Your task to perform on an android device: Search for Italian restaurants on Maps Image 0: 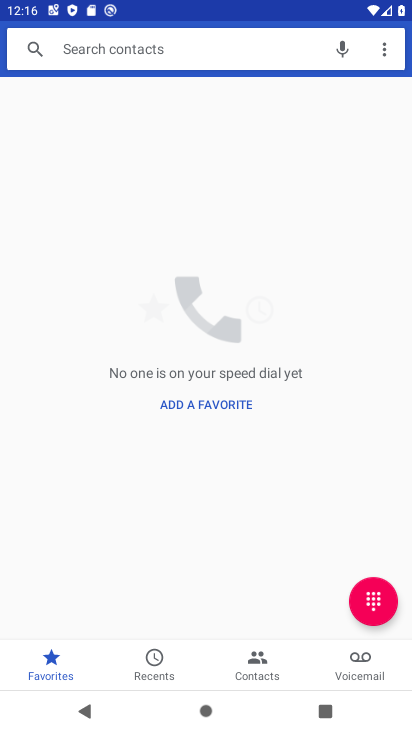
Step 0: press home button
Your task to perform on an android device: Search for Italian restaurants on Maps Image 1: 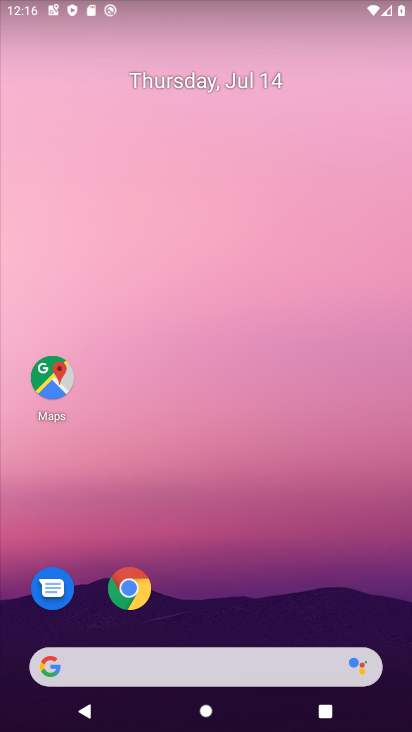
Step 1: click (45, 399)
Your task to perform on an android device: Search for Italian restaurants on Maps Image 2: 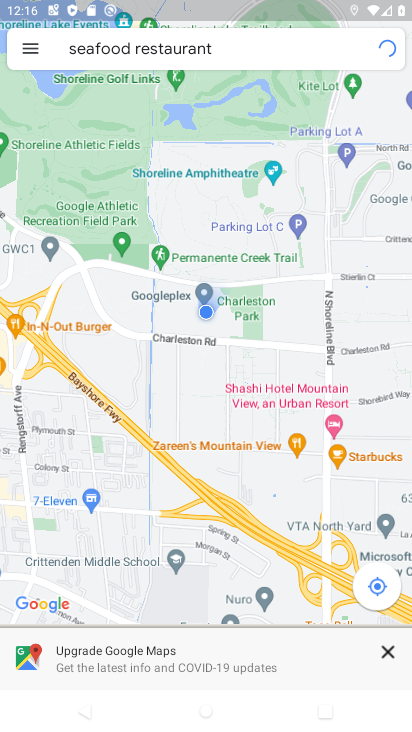
Step 2: click (290, 45)
Your task to perform on an android device: Search for Italian restaurants on Maps Image 3: 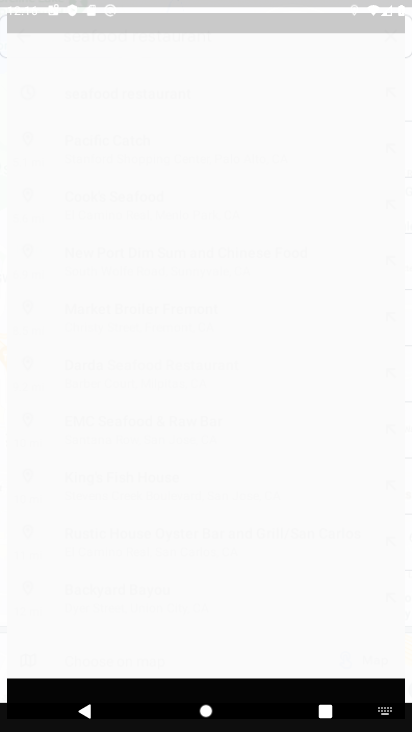
Step 3: click (386, 44)
Your task to perform on an android device: Search for Italian restaurants on Maps Image 4: 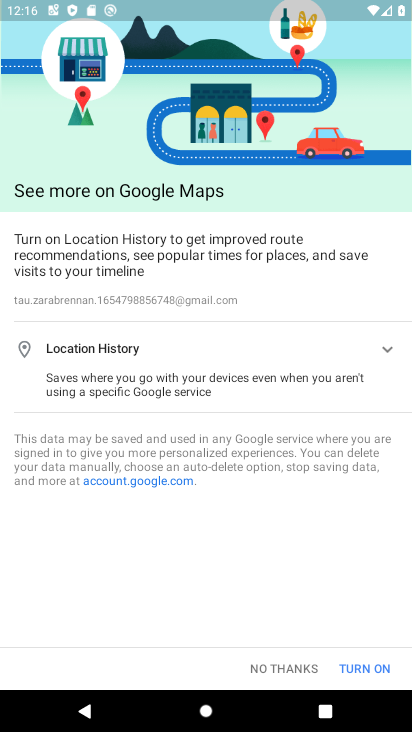
Step 4: click (354, 672)
Your task to perform on an android device: Search for Italian restaurants on Maps Image 5: 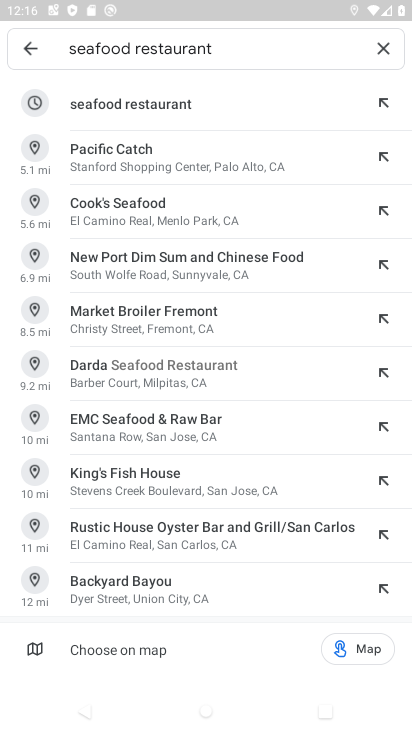
Step 5: click (386, 44)
Your task to perform on an android device: Search for Italian restaurants on Maps Image 6: 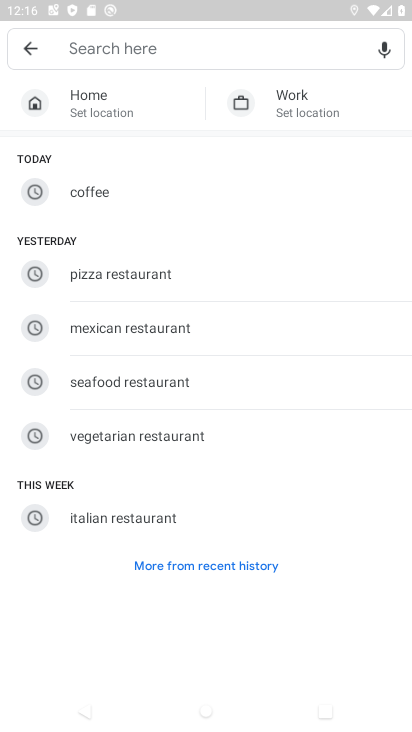
Step 6: type "italian"
Your task to perform on an android device: Search for Italian restaurants on Maps Image 7: 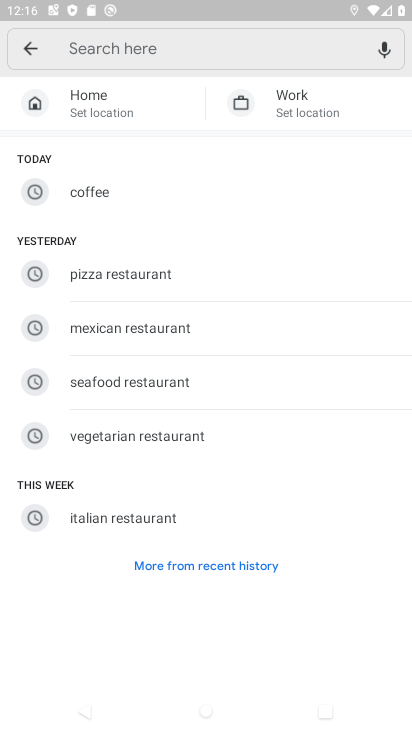
Step 7: click (192, 513)
Your task to perform on an android device: Search for Italian restaurants on Maps Image 8: 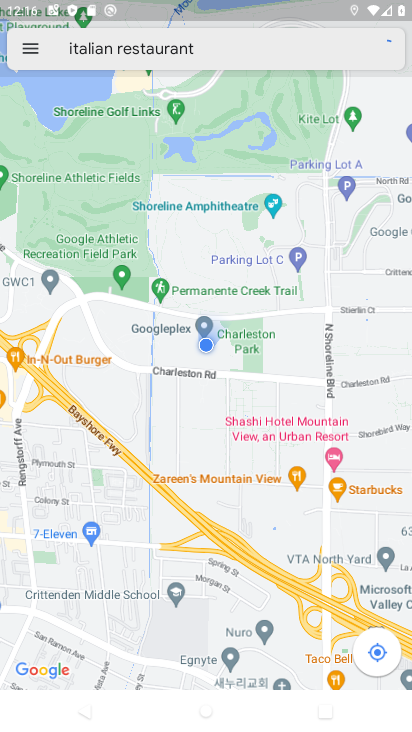
Step 8: task complete